Your task to perform on an android device: Open Reddit.com Image 0: 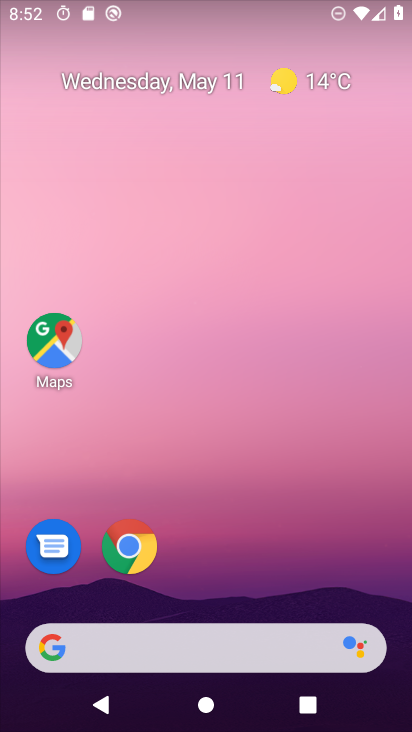
Step 0: click (147, 565)
Your task to perform on an android device: Open Reddit.com Image 1: 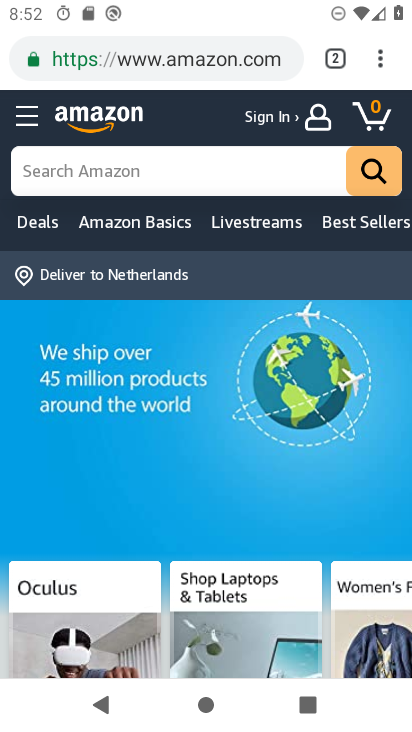
Step 1: click (147, 565)
Your task to perform on an android device: Open Reddit.com Image 2: 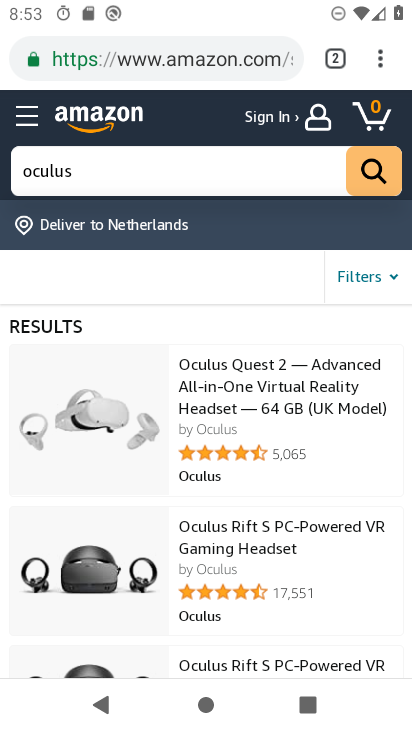
Step 2: click (260, 63)
Your task to perform on an android device: Open Reddit.com Image 3: 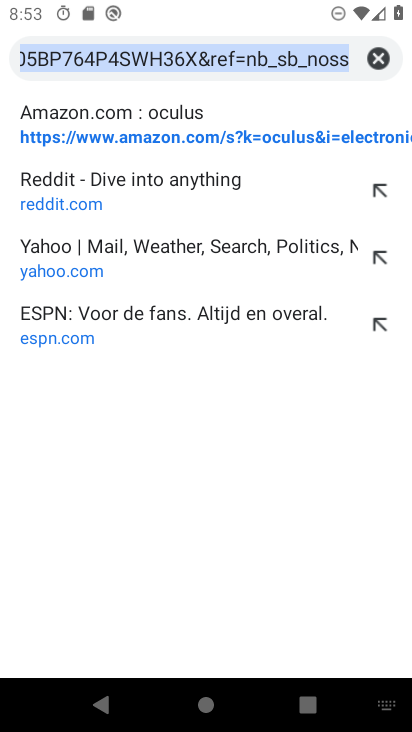
Step 3: click (135, 193)
Your task to perform on an android device: Open Reddit.com Image 4: 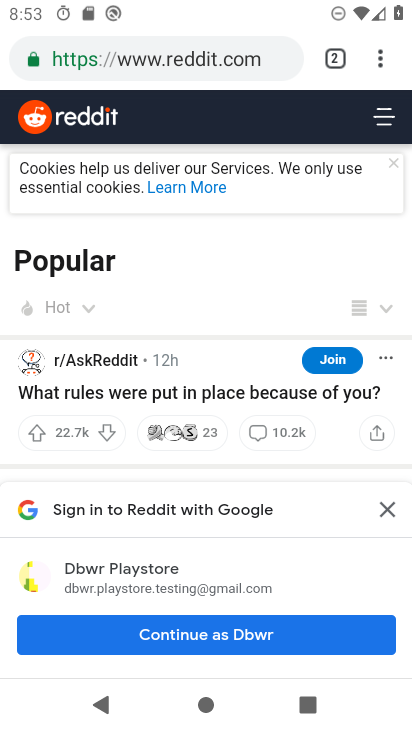
Step 4: task complete